Your task to perform on an android device: turn pop-ups off in chrome Image 0: 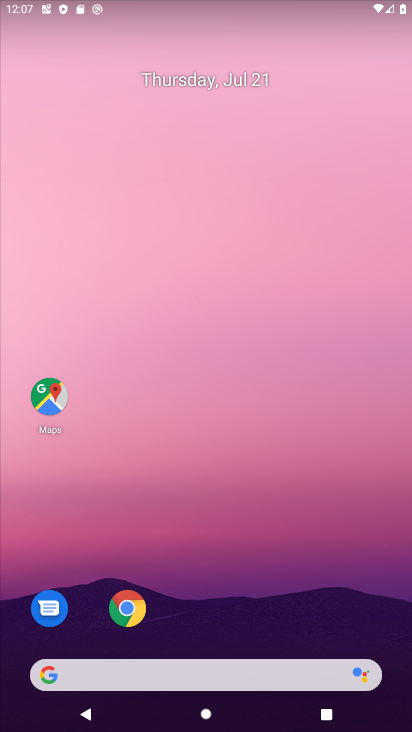
Step 0: drag from (348, 590) to (154, 21)
Your task to perform on an android device: turn pop-ups off in chrome Image 1: 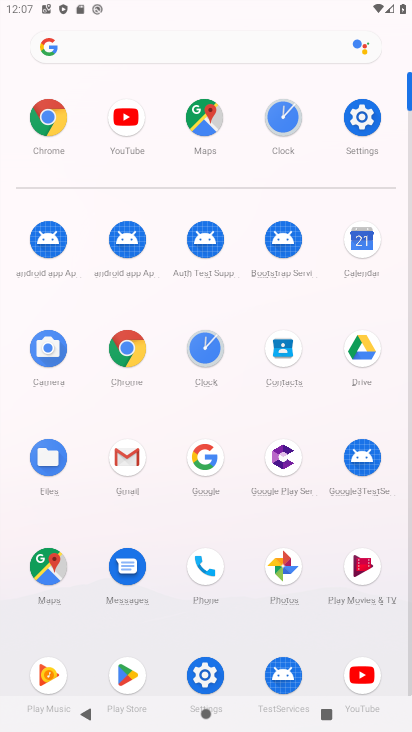
Step 1: click (131, 370)
Your task to perform on an android device: turn pop-ups off in chrome Image 2: 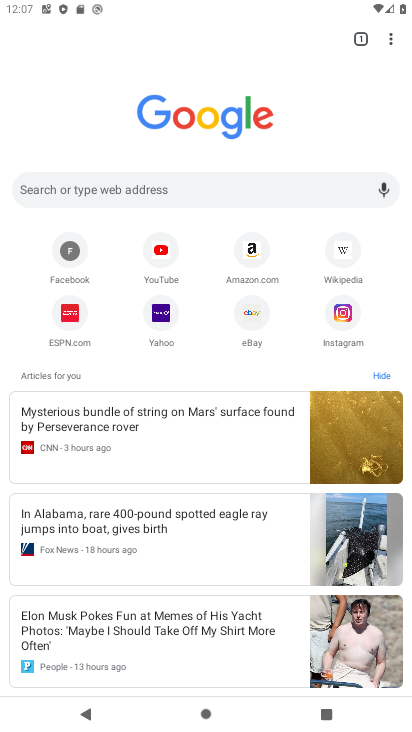
Step 2: click (385, 37)
Your task to perform on an android device: turn pop-ups off in chrome Image 3: 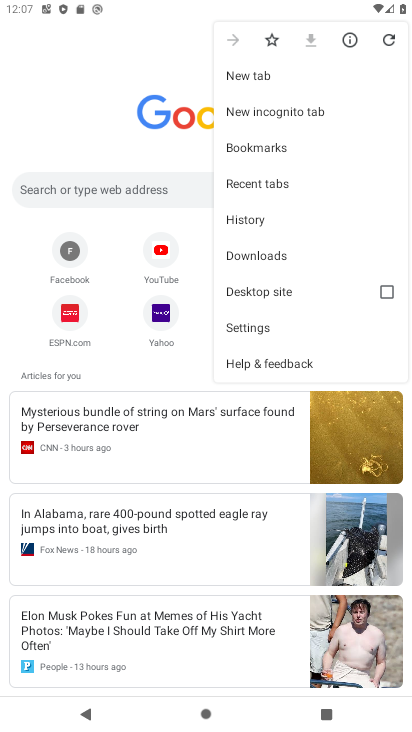
Step 3: click (259, 327)
Your task to perform on an android device: turn pop-ups off in chrome Image 4: 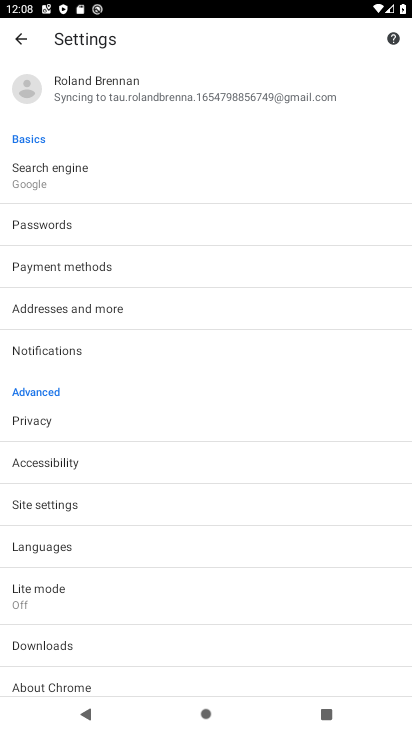
Step 4: click (69, 506)
Your task to perform on an android device: turn pop-ups off in chrome Image 5: 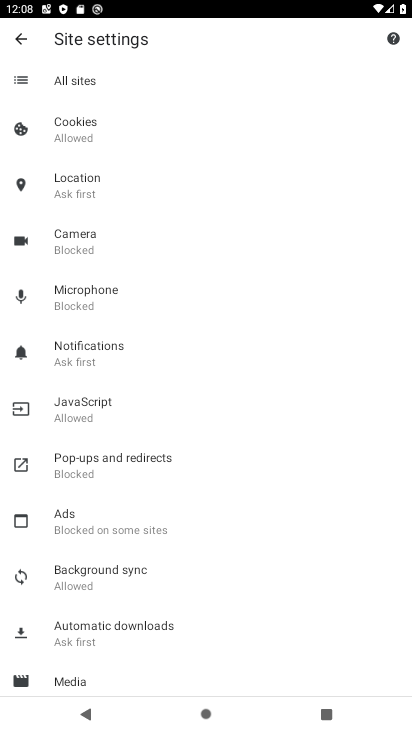
Step 5: click (162, 472)
Your task to perform on an android device: turn pop-ups off in chrome Image 6: 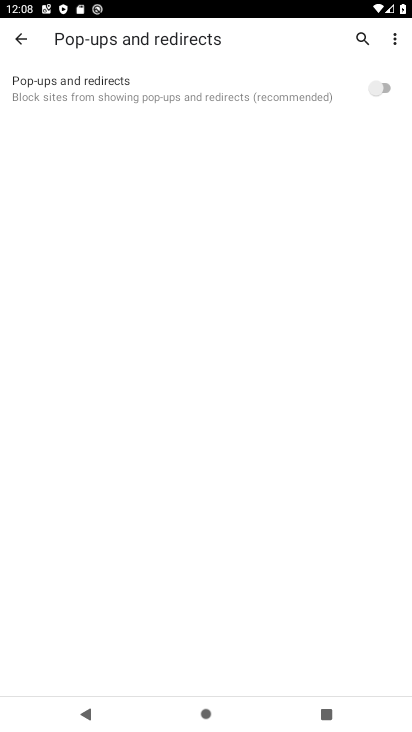
Step 6: task complete